Your task to perform on an android device: clear all cookies in the chrome app Image 0: 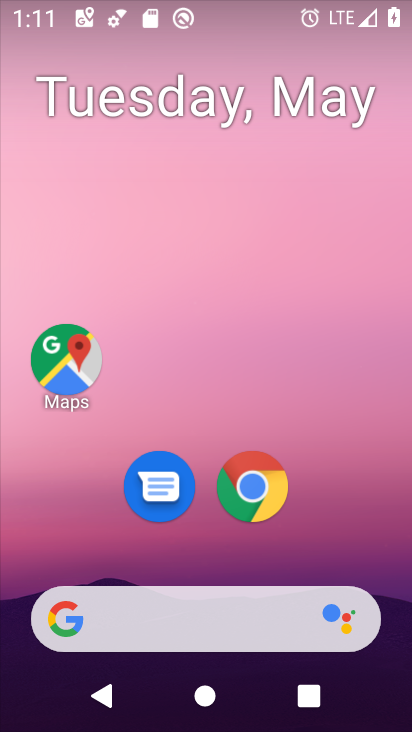
Step 0: click (255, 486)
Your task to perform on an android device: clear all cookies in the chrome app Image 1: 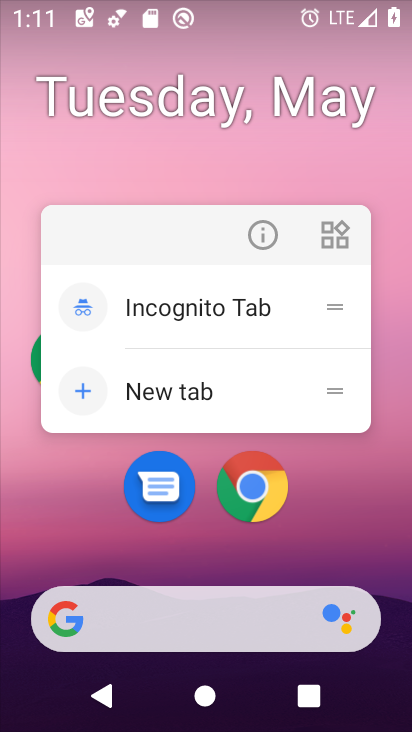
Step 1: click (254, 486)
Your task to perform on an android device: clear all cookies in the chrome app Image 2: 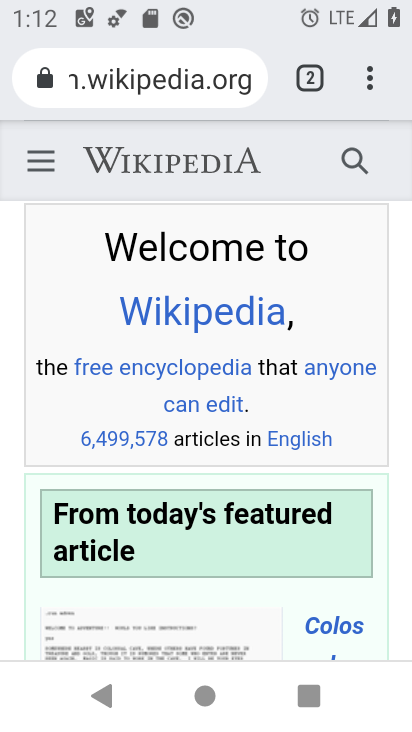
Step 2: click (374, 81)
Your task to perform on an android device: clear all cookies in the chrome app Image 3: 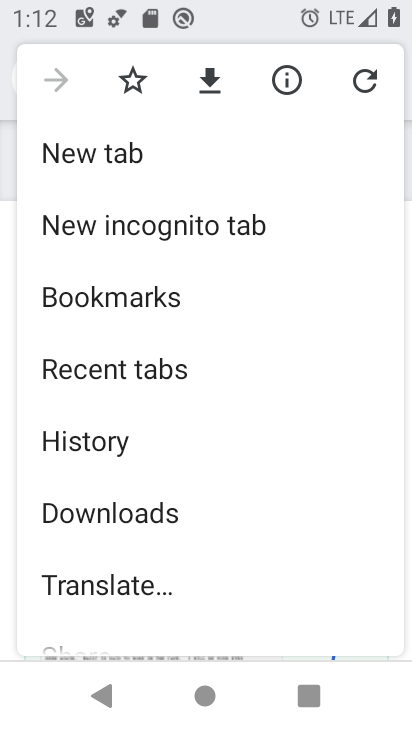
Step 3: drag from (78, 599) to (232, 278)
Your task to perform on an android device: clear all cookies in the chrome app Image 4: 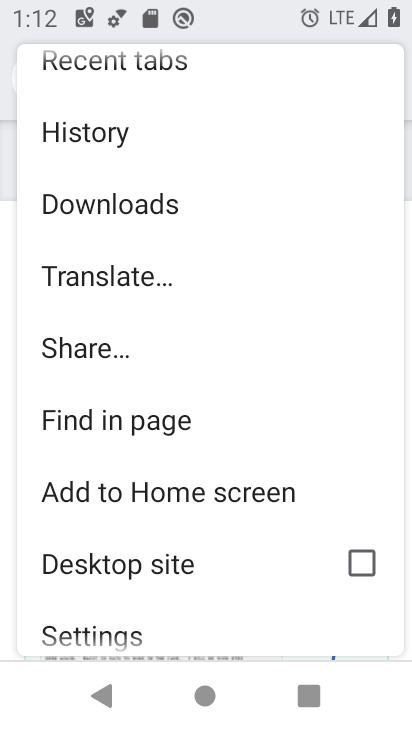
Step 4: click (144, 140)
Your task to perform on an android device: clear all cookies in the chrome app Image 5: 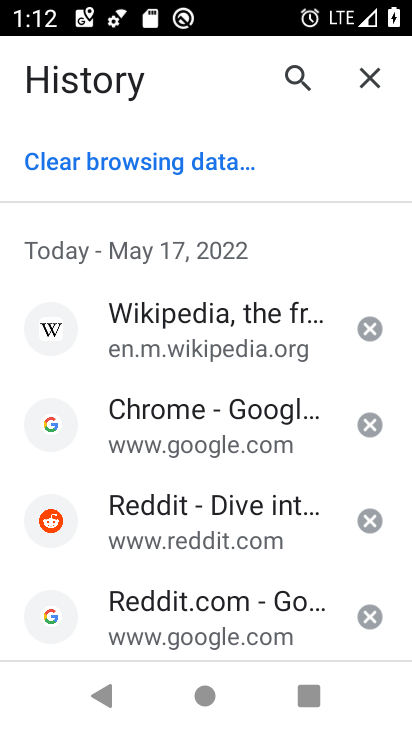
Step 5: click (165, 154)
Your task to perform on an android device: clear all cookies in the chrome app Image 6: 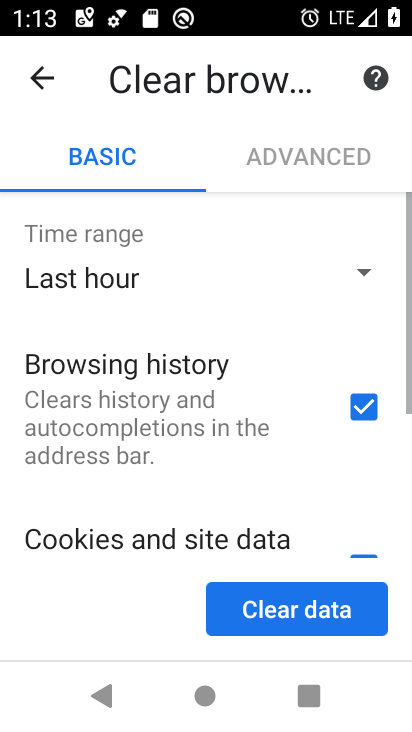
Step 6: drag from (219, 516) to (251, 276)
Your task to perform on an android device: clear all cookies in the chrome app Image 7: 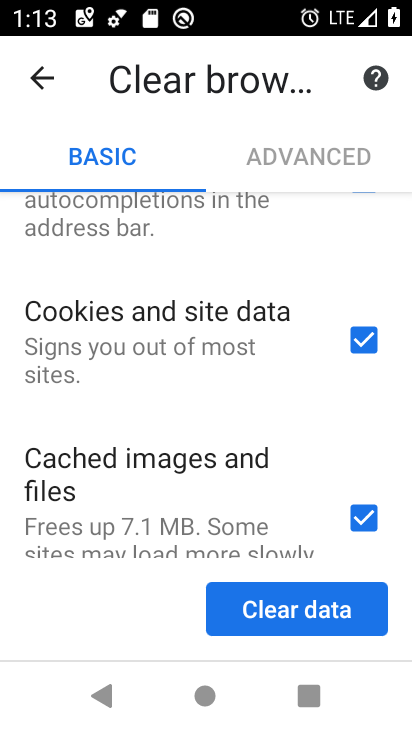
Step 7: click (367, 338)
Your task to perform on an android device: clear all cookies in the chrome app Image 8: 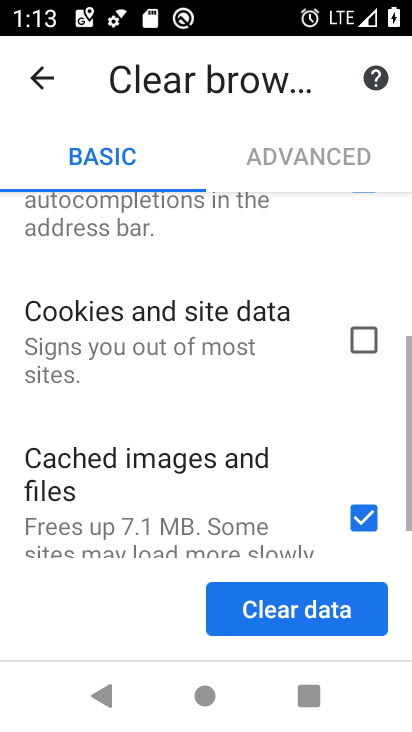
Step 8: click (374, 342)
Your task to perform on an android device: clear all cookies in the chrome app Image 9: 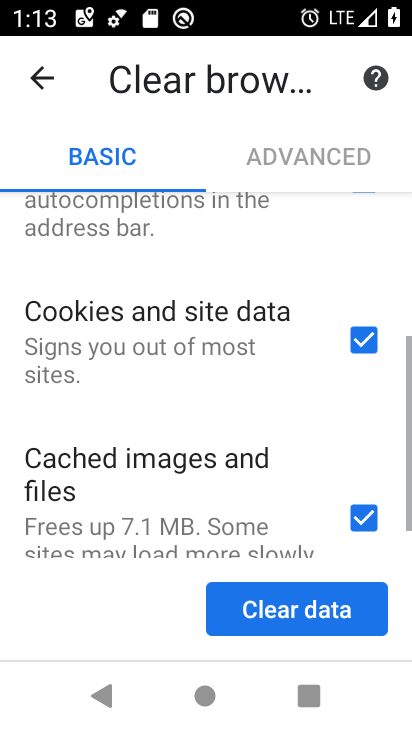
Step 9: click (366, 525)
Your task to perform on an android device: clear all cookies in the chrome app Image 10: 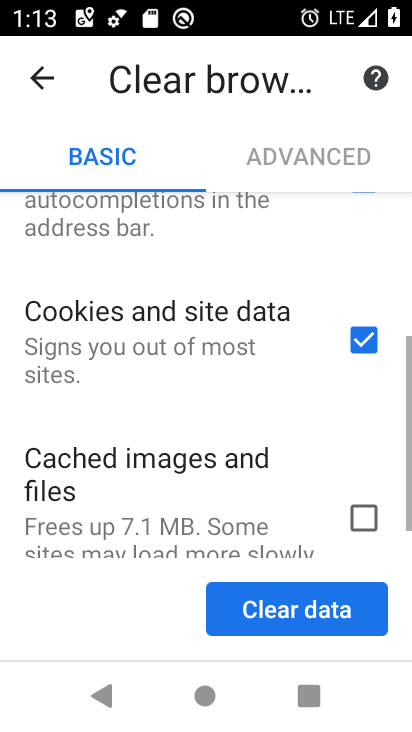
Step 10: drag from (132, 539) to (237, 187)
Your task to perform on an android device: clear all cookies in the chrome app Image 11: 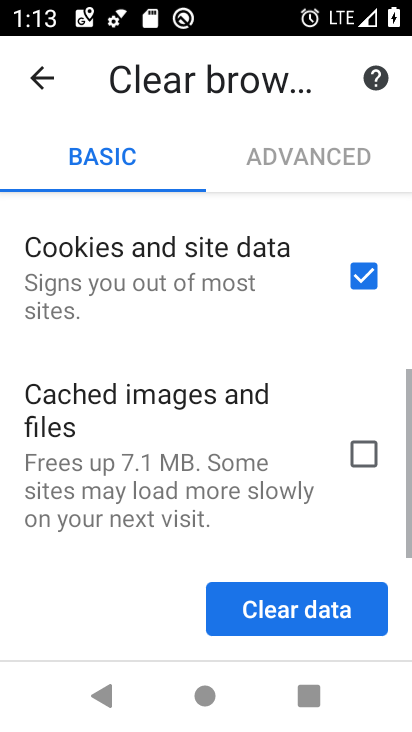
Step 11: click (257, 613)
Your task to perform on an android device: clear all cookies in the chrome app Image 12: 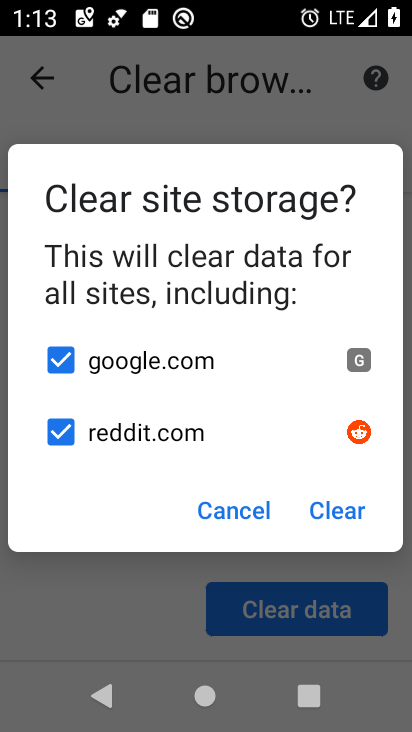
Step 12: click (332, 510)
Your task to perform on an android device: clear all cookies in the chrome app Image 13: 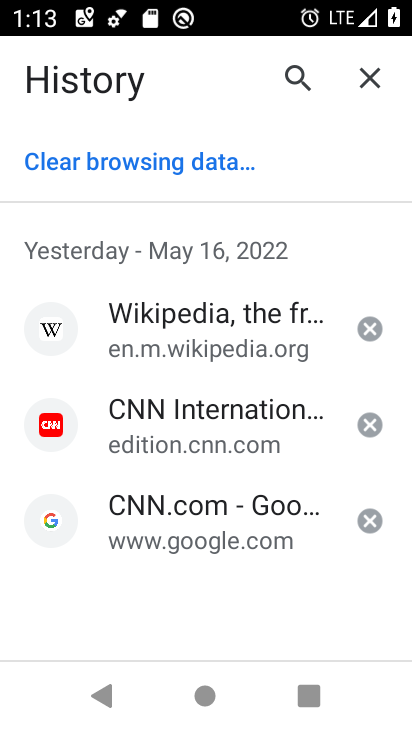
Step 13: task complete